Your task to perform on an android device: Open accessibility settings Image 0: 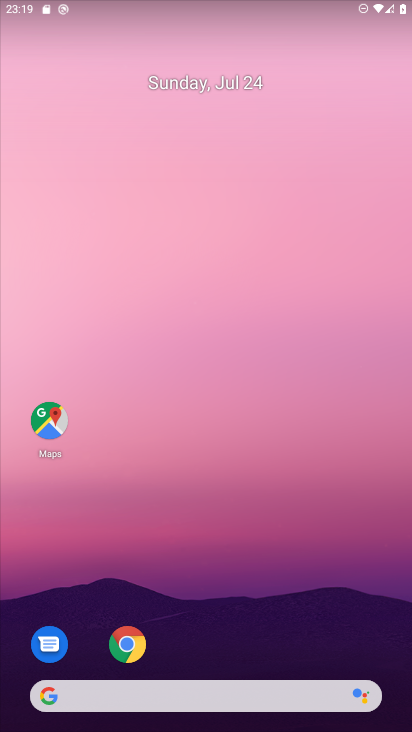
Step 0: drag from (328, 654) to (302, 86)
Your task to perform on an android device: Open accessibility settings Image 1: 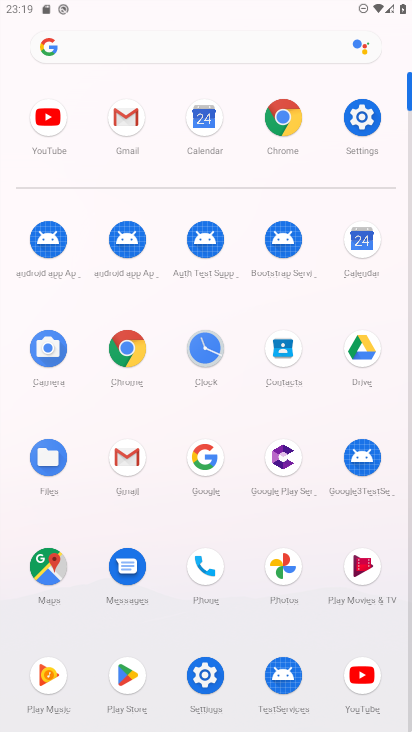
Step 1: click (207, 673)
Your task to perform on an android device: Open accessibility settings Image 2: 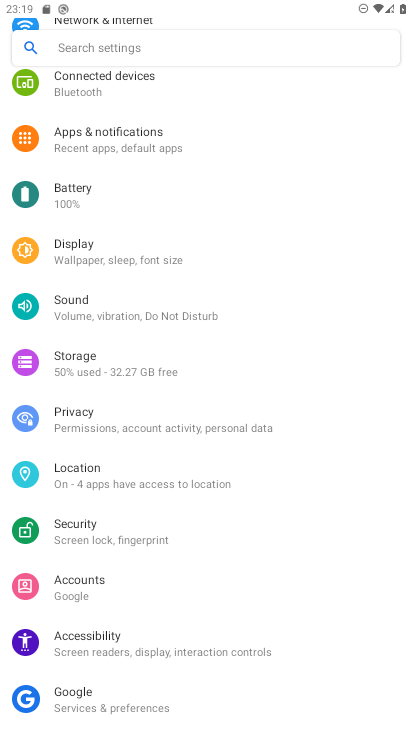
Step 2: click (98, 638)
Your task to perform on an android device: Open accessibility settings Image 3: 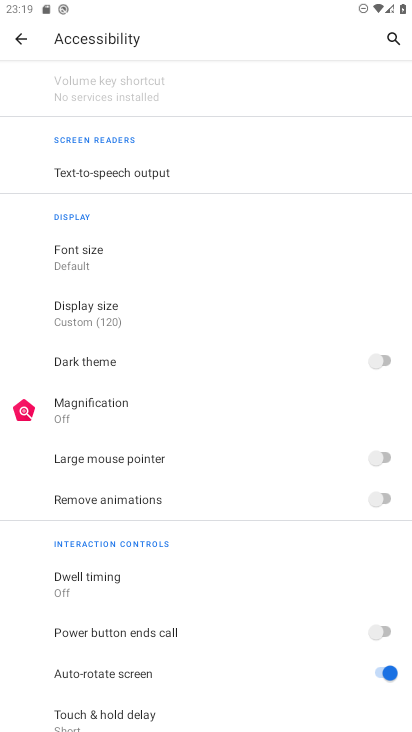
Step 3: task complete